Your task to perform on an android device: remove spam from my inbox in the gmail app Image 0: 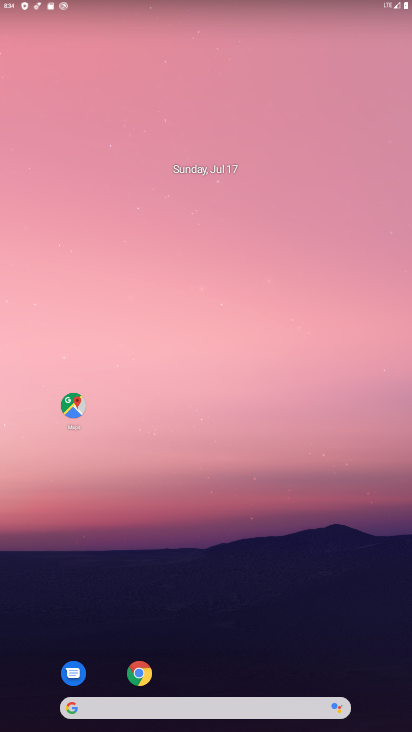
Step 0: drag from (360, 673) to (239, 110)
Your task to perform on an android device: remove spam from my inbox in the gmail app Image 1: 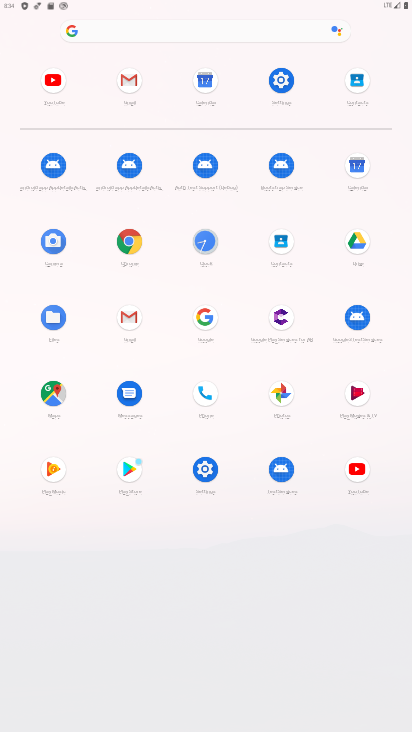
Step 1: click (131, 310)
Your task to perform on an android device: remove spam from my inbox in the gmail app Image 2: 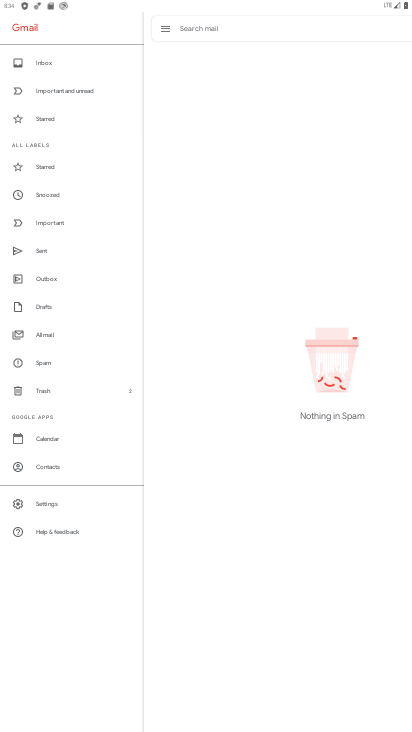
Step 2: task complete